Your task to perform on an android device: Open the contacts Image 0: 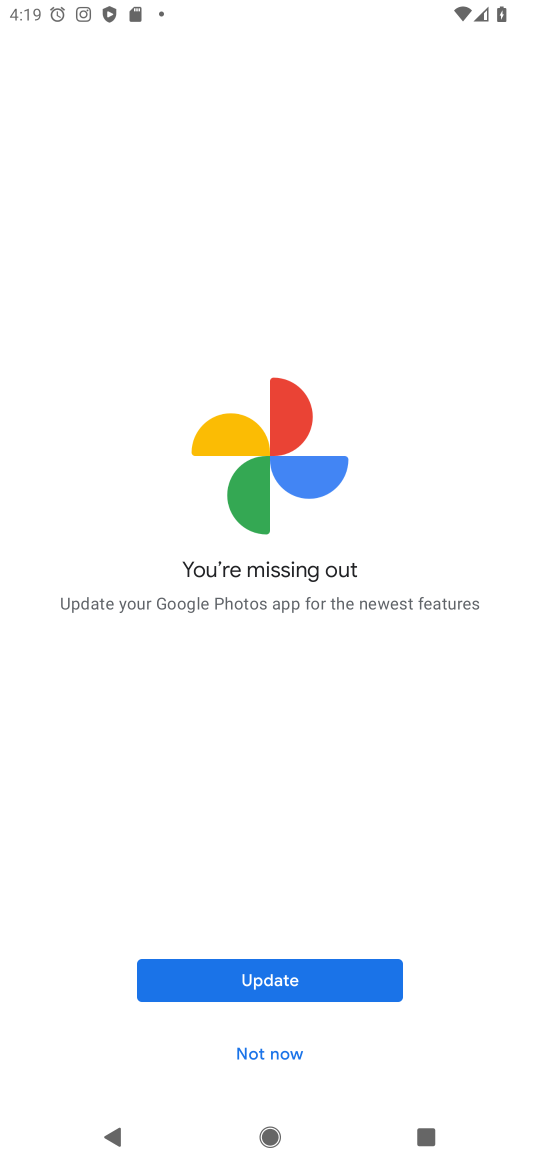
Step 0: press home button
Your task to perform on an android device: Open the contacts Image 1: 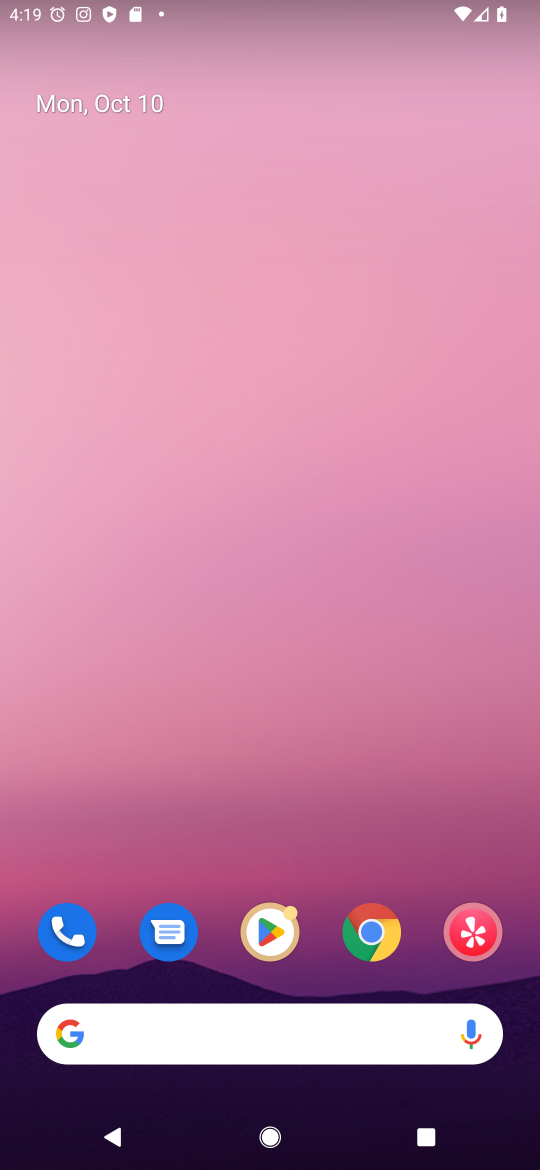
Step 1: drag from (484, 775) to (468, 87)
Your task to perform on an android device: Open the contacts Image 2: 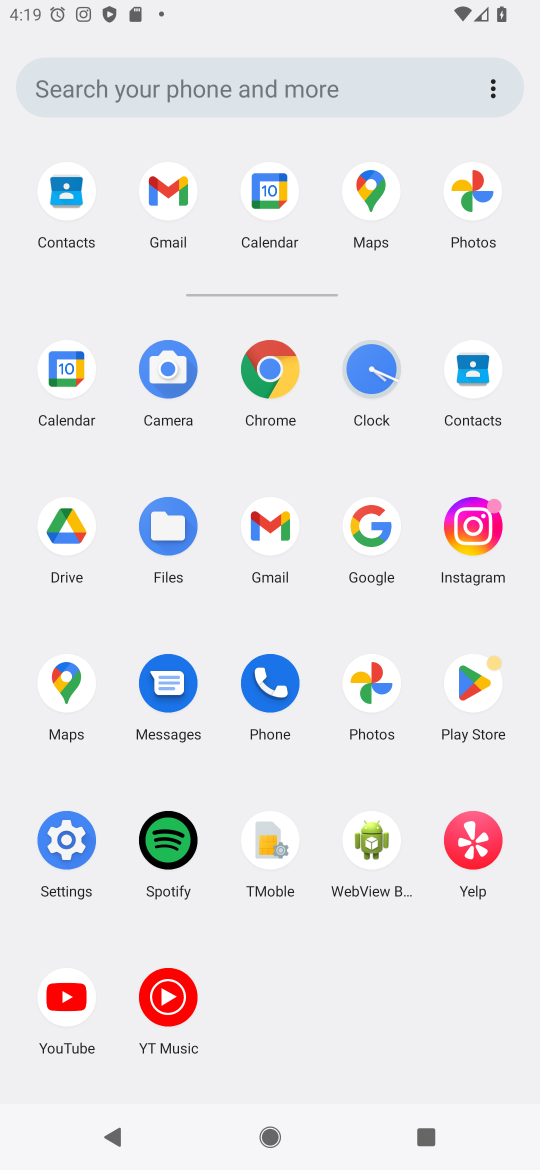
Step 2: click (469, 381)
Your task to perform on an android device: Open the contacts Image 3: 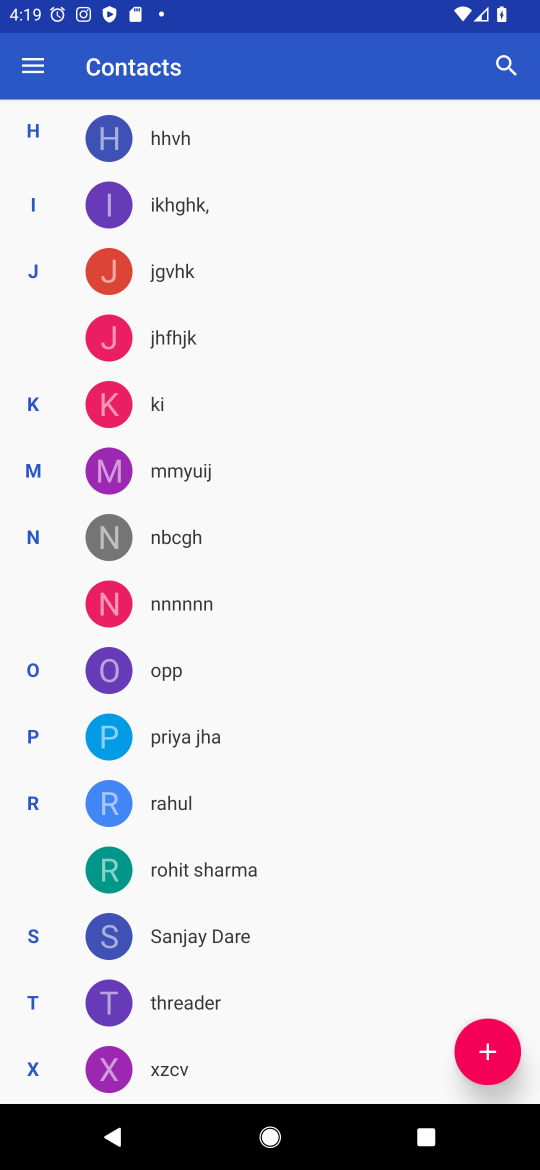
Step 3: task complete